Your task to perform on an android device: Open wifi settings Image 0: 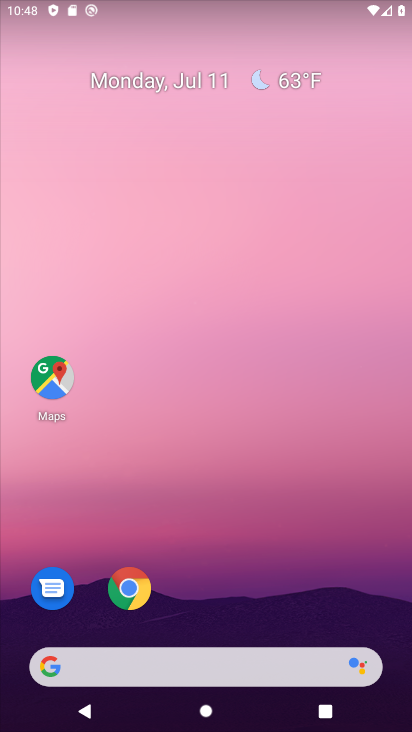
Step 0: drag from (247, 679) to (241, 244)
Your task to perform on an android device: Open wifi settings Image 1: 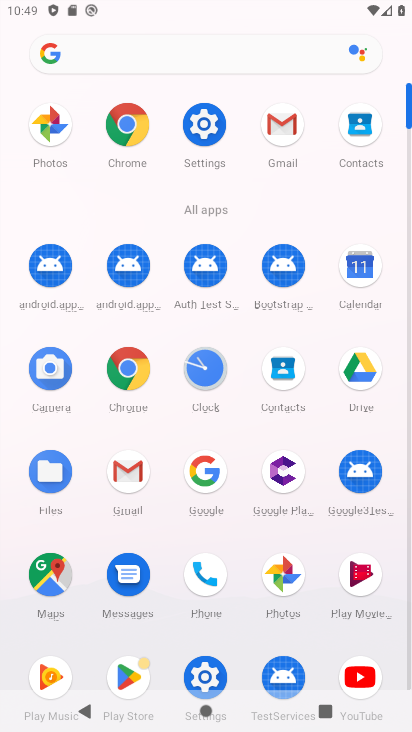
Step 1: click (200, 120)
Your task to perform on an android device: Open wifi settings Image 2: 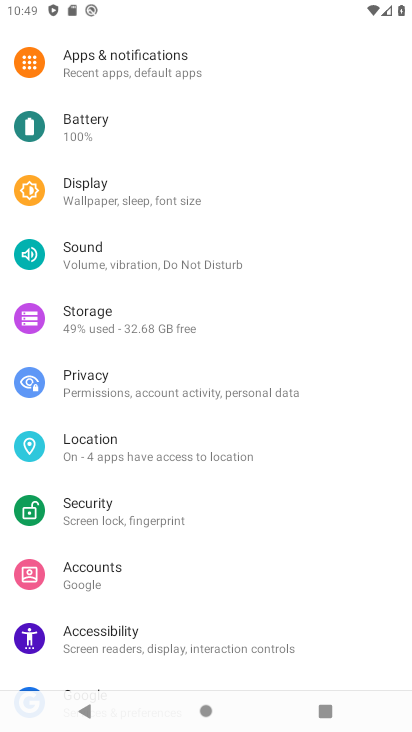
Step 2: drag from (167, 108) to (132, 610)
Your task to perform on an android device: Open wifi settings Image 3: 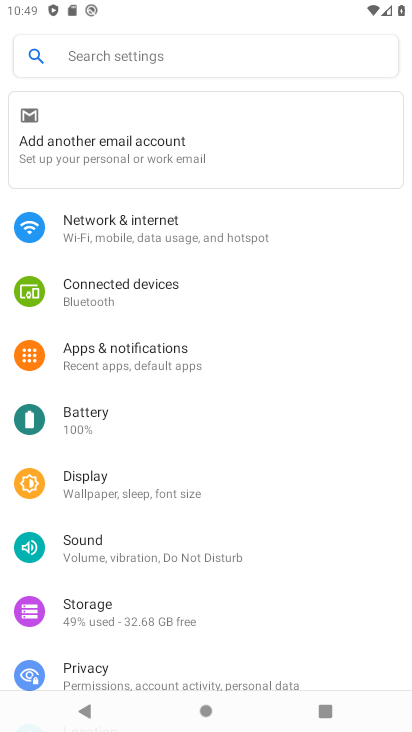
Step 3: click (112, 241)
Your task to perform on an android device: Open wifi settings Image 4: 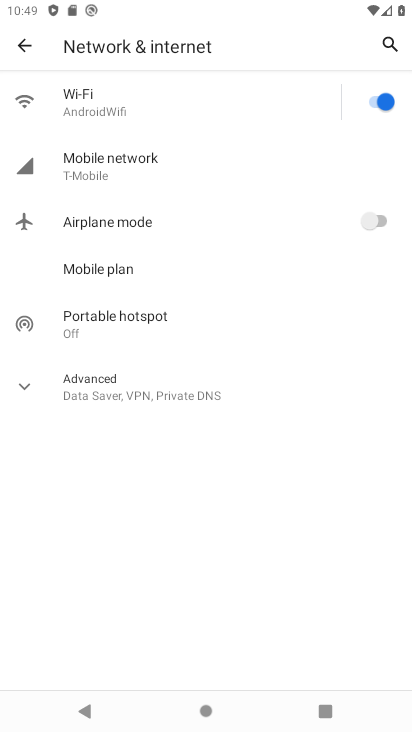
Step 4: click (83, 107)
Your task to perform on an android device: Open wifi settings Image 5: 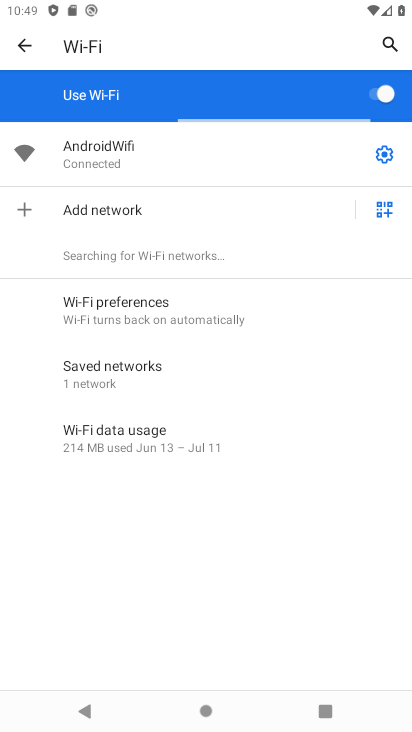
Step 5: task complete